Your task to perform on an android device: change the clock display to show seconds Image 0: 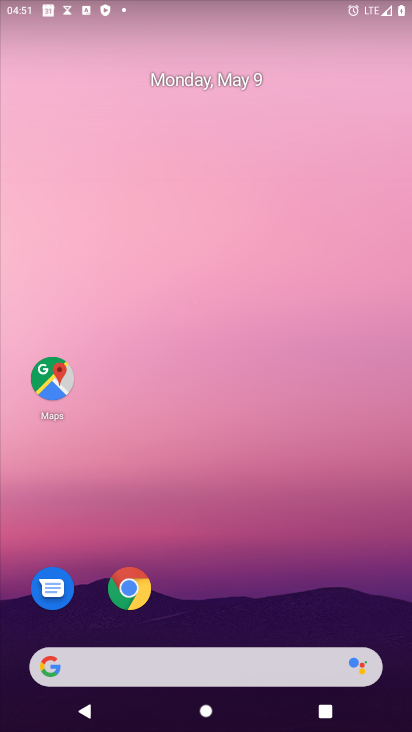
Step 0: drag from (233, 573) to (254, 280)
Your task to perform on an android device: change the clock display to show seconds Image 1: 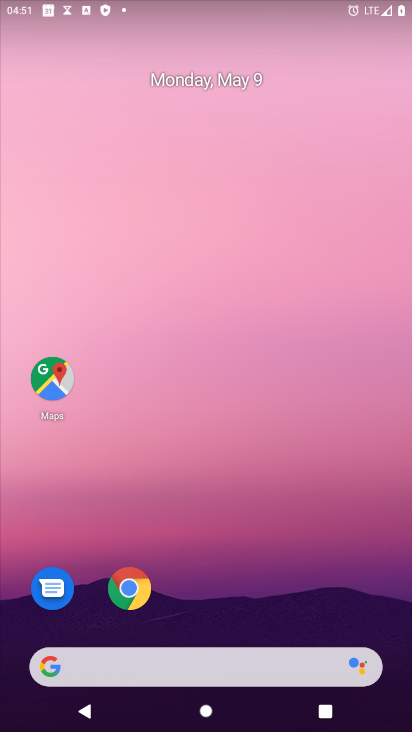
Step 1: drag from (254, 579) to (204, 144)
Your task to perform on an android device: change the clock display to show seconds Image 2: 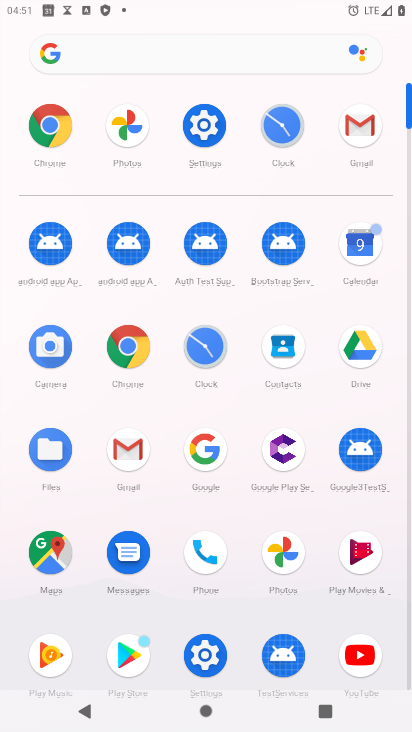
Step 2: click (276, 123)
Your task to perform on an android device: change the clock display to show seconds Image 3: 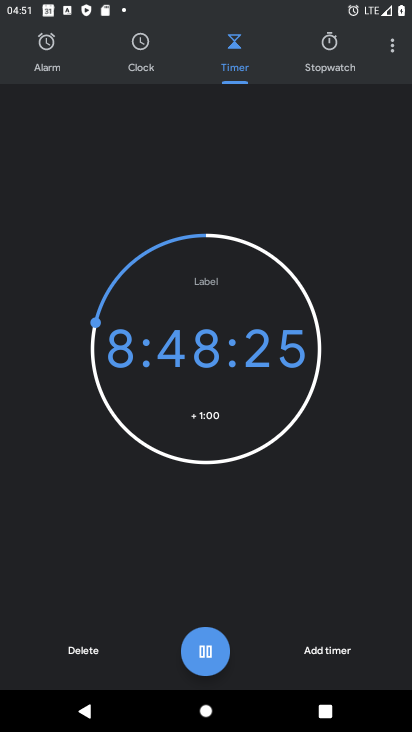
Step 3: click (396, 42)
Your task to perform on an android device: change the clock display to show seconds Image 4: 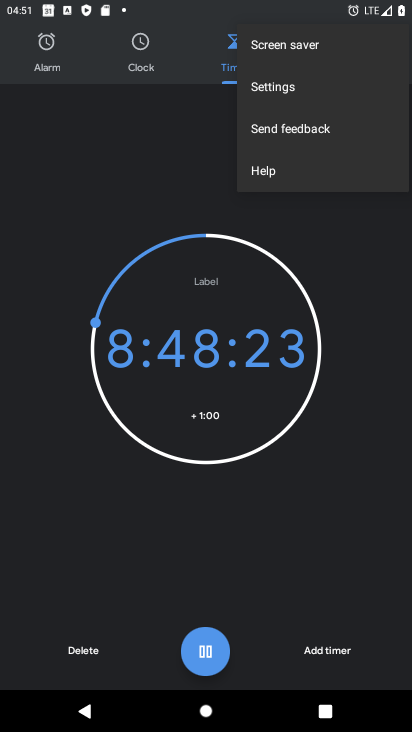
Step 4: click (327, 89)
Your task to perform on an android device: change the clock display to show seconds Image 5: 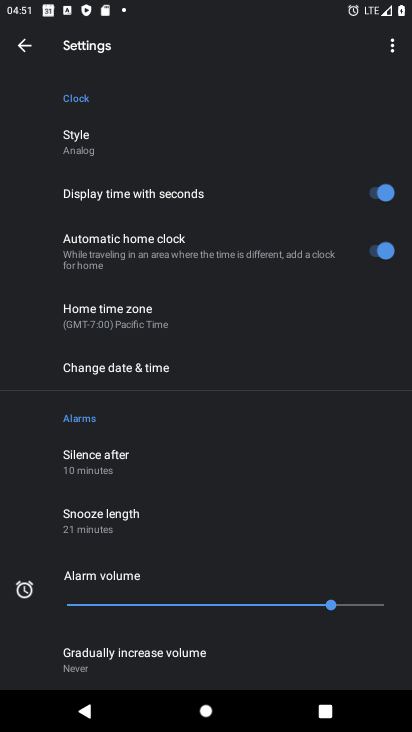
Step 5: task complete